Your task to perform on an android device: Go to Google Image 0: 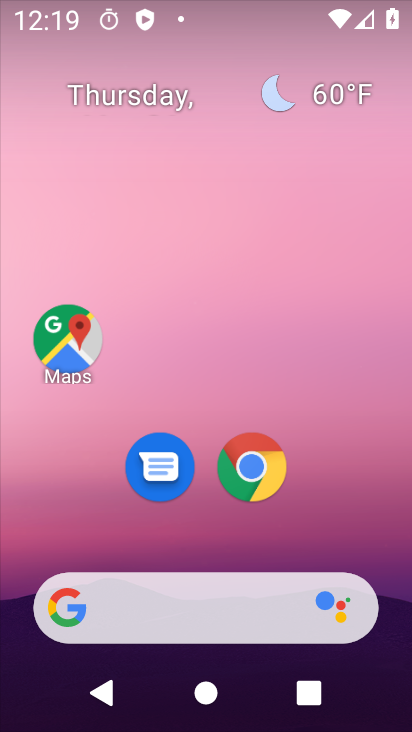
Step 0: click (180, 612)
Your task to perform on an android device: Go to Google Image 1: 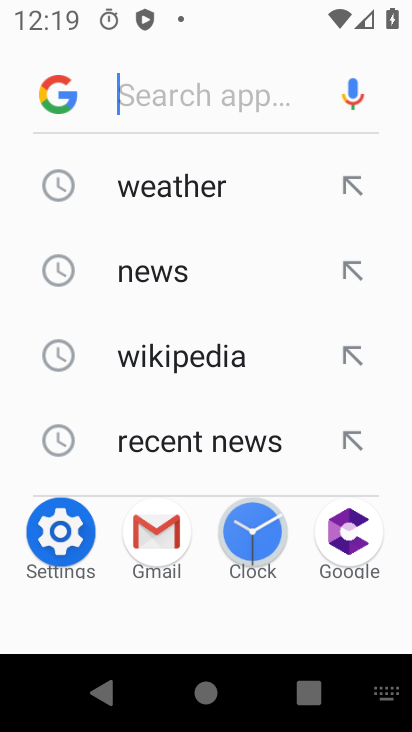
Step 1: click (62, 96)
Your task to perform on an android device: Go to Google Image 2: 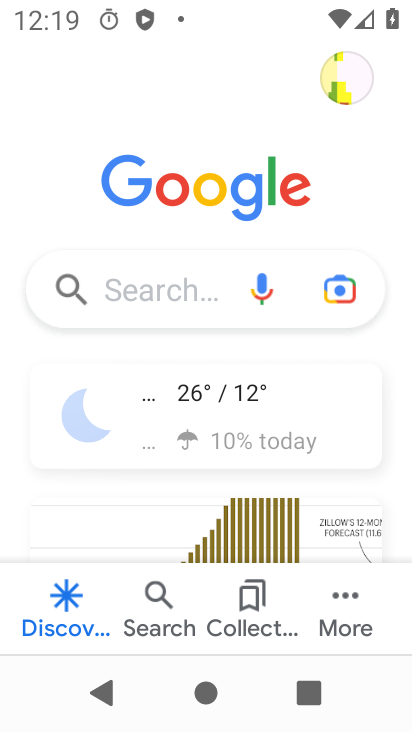
Step 2: task complete